Your task to perform on an android device: move a message to another label in the gmail app Image 0: 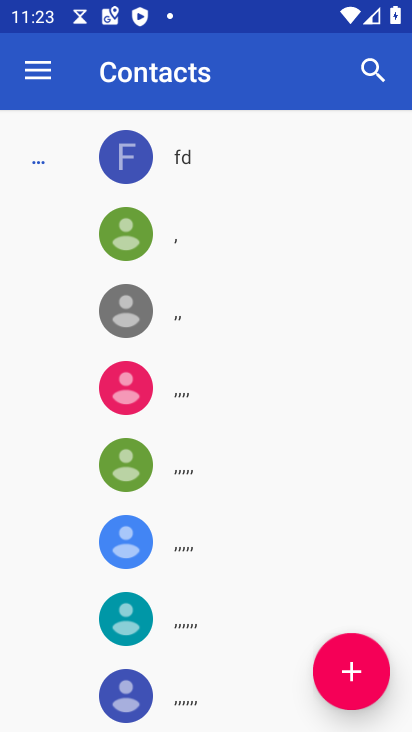
Step 0: press home button
Your task to perform on an android device: move a message to another label in the gmail app Image 1: 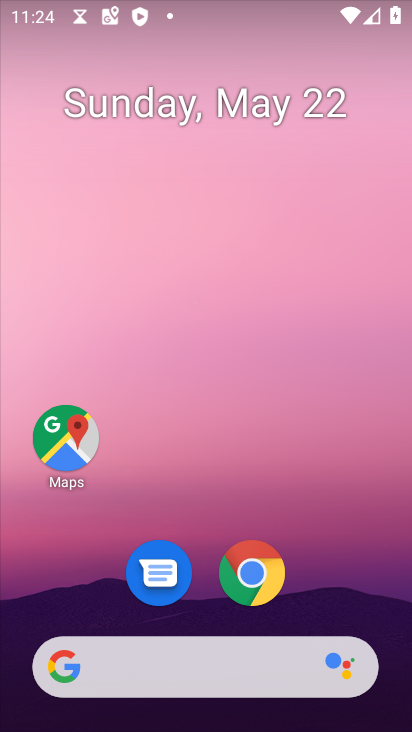
Step 1: drag from (184, 671) to (338, 169)
Your task to perform on an android device: move a message to another label in the gmail app Image 2: 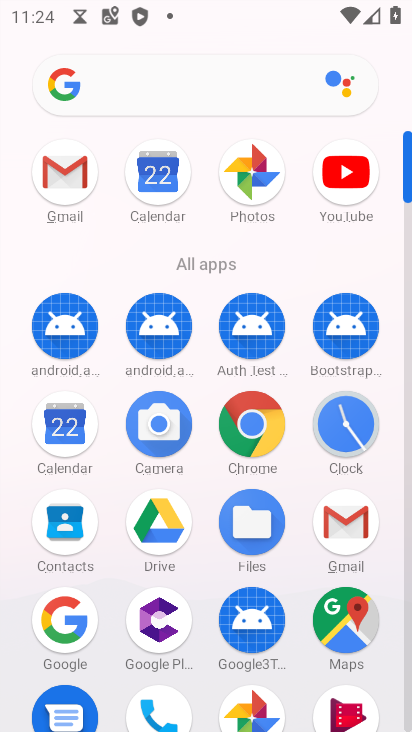
Step 2: click (346, 541)
Your task to perform on an android device: move a message to another label in the gmail app Image 3: 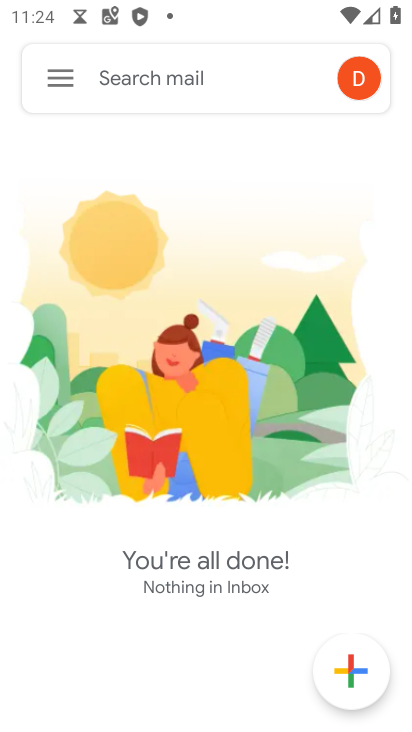
Step 3: task complete